Your task to perform on an android device: open app "Facebook Lite" Image 0: 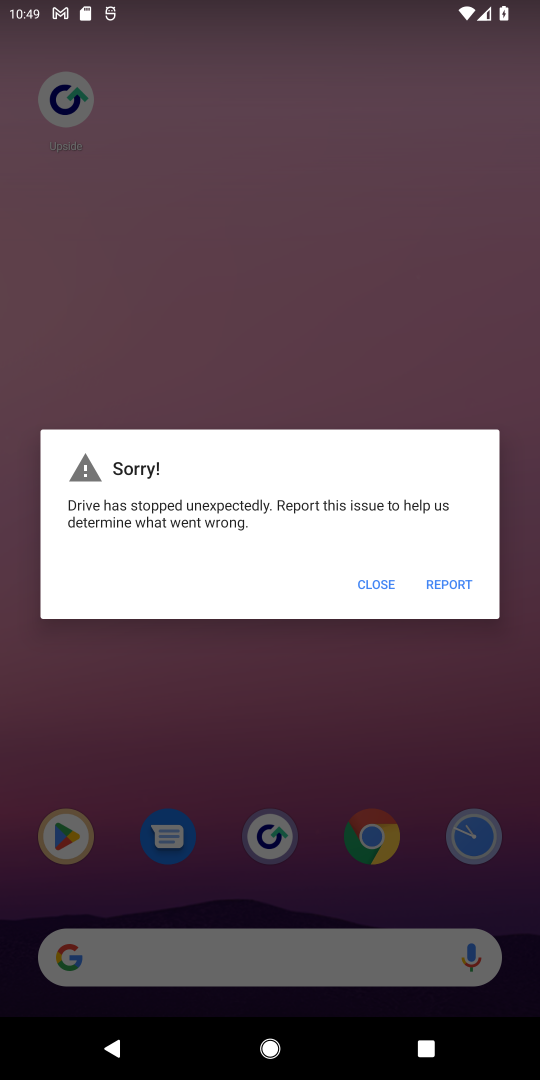
Step 0: press home button
Your task to perform on an android device: open app "Facebook Lite" Image 1: 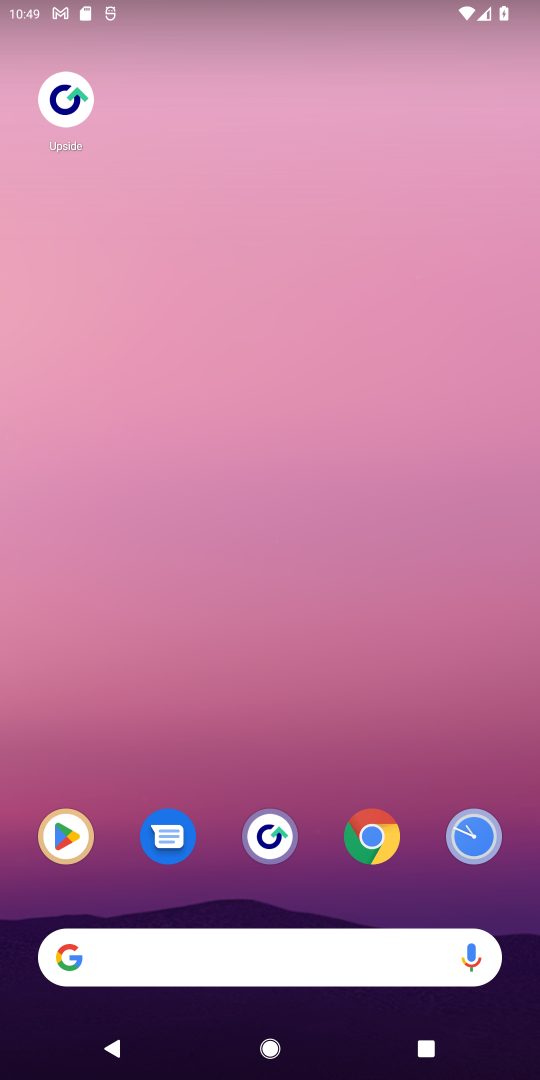
Step 1: drag from (262, 774) to (217, 655)
Your task to perform on an android device: open app "Facebook Lite" Image 2: 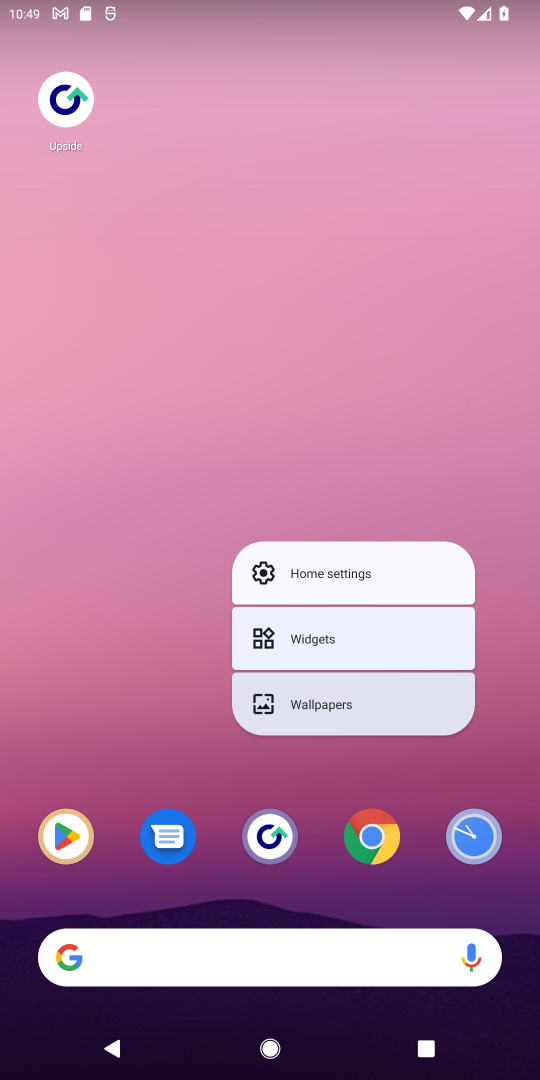
Step 2: click (68, 850)
Your task to perform on an android device: open app "Facebook Lite" Image 3: 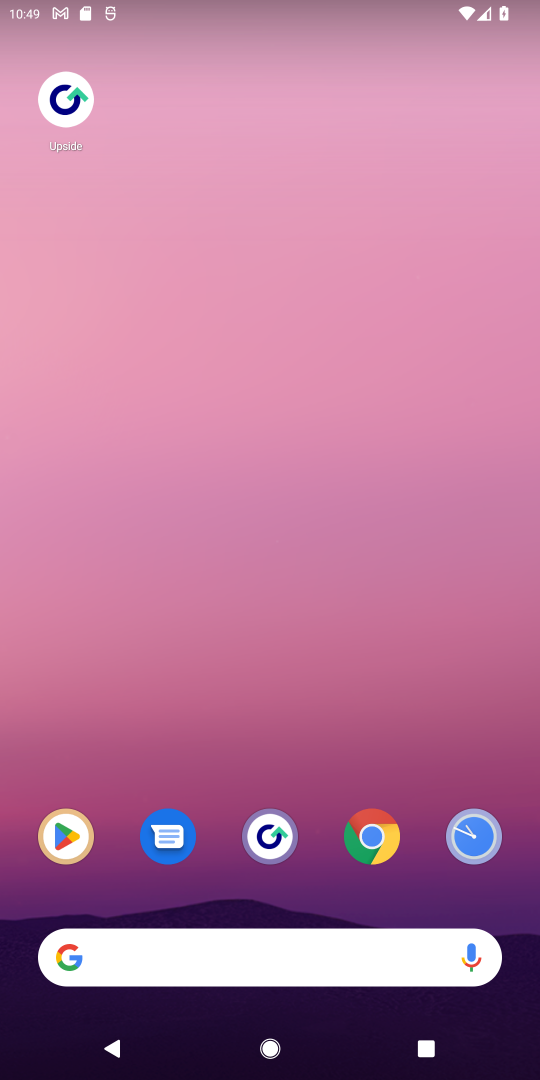
Step 3: click (62, 833)
Your task to perform on an android device: open app "Facebook Lite" Image 4: 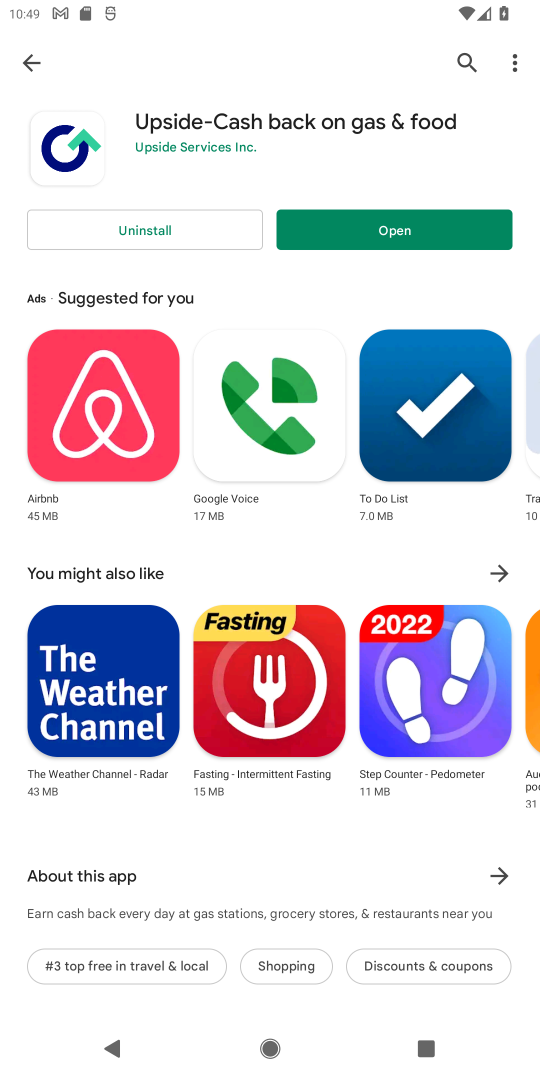
Step 4: click (37, 72)
Your task to perform on an android device: open app "Facebook Lite" Image 5: 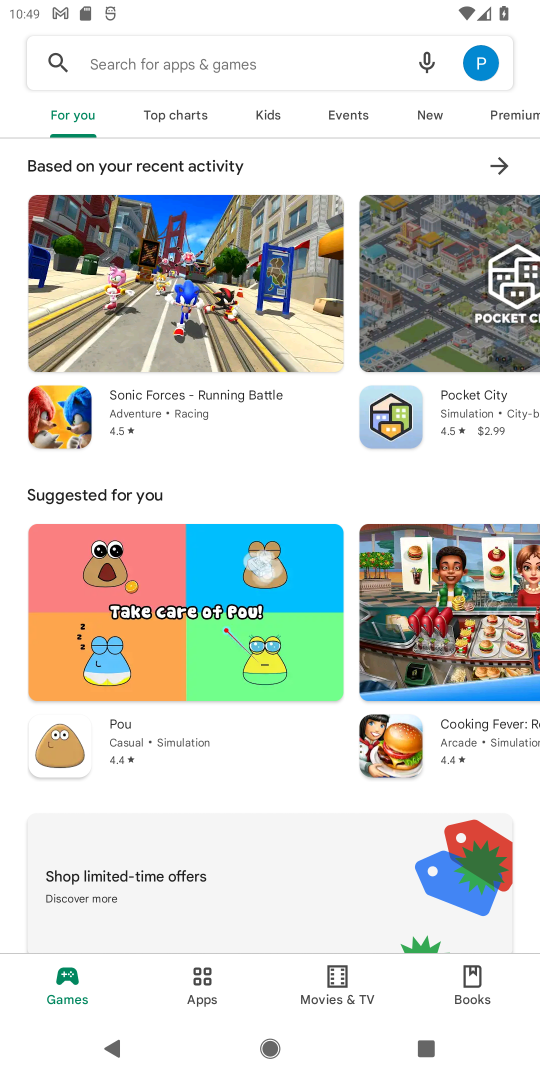
Step 5: click (288, 72)
Your task to perform on an android device: open app "Facebook Lite" Image 6: 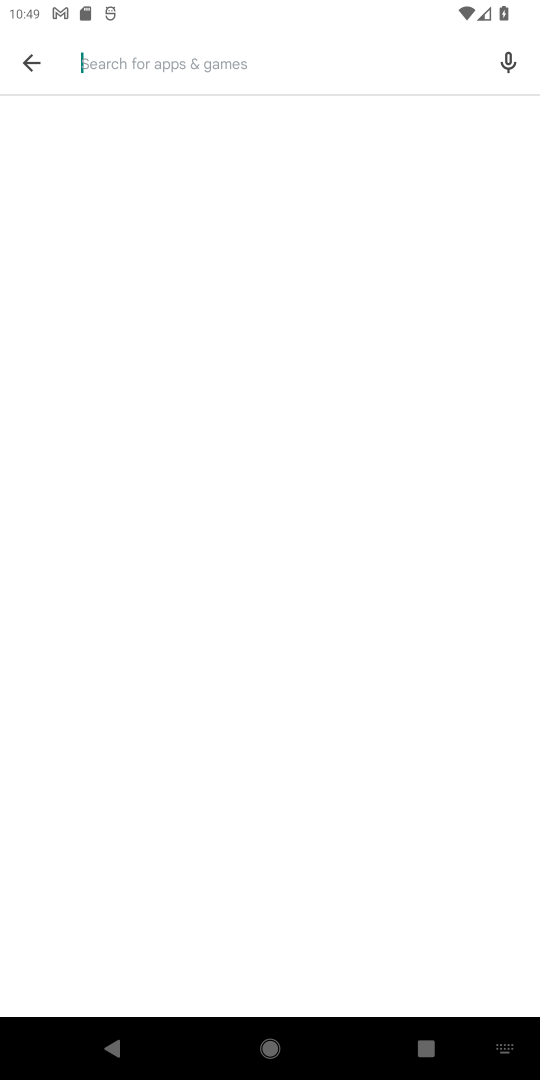
Step 6: type "facebook lite"
Your task to perform on an android device: open app "Facebook Lite" Image 7: 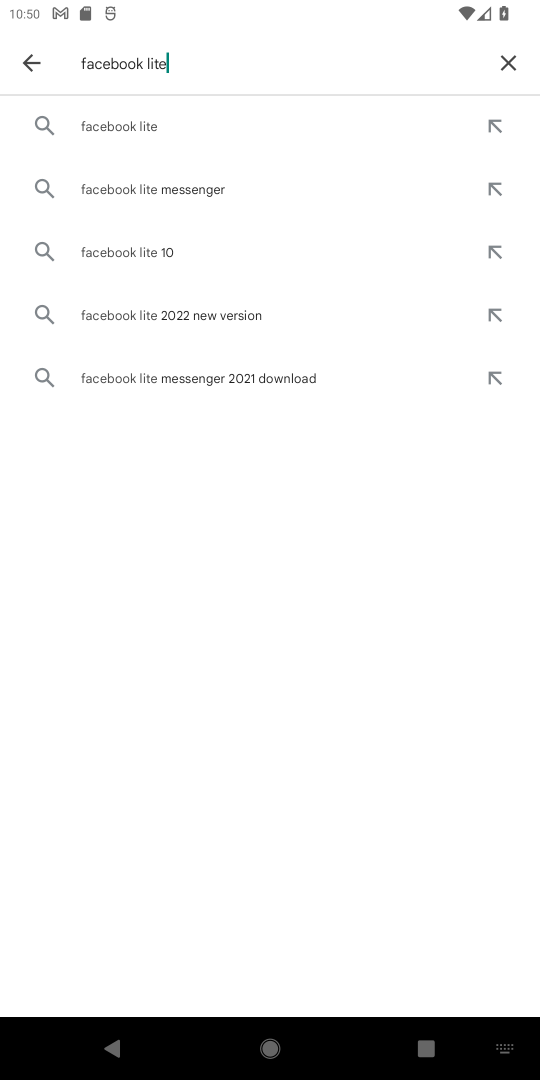
Step 7: click (197, 130)
Your task to perform on an android device: open app "Facebook Lite" Image 8: 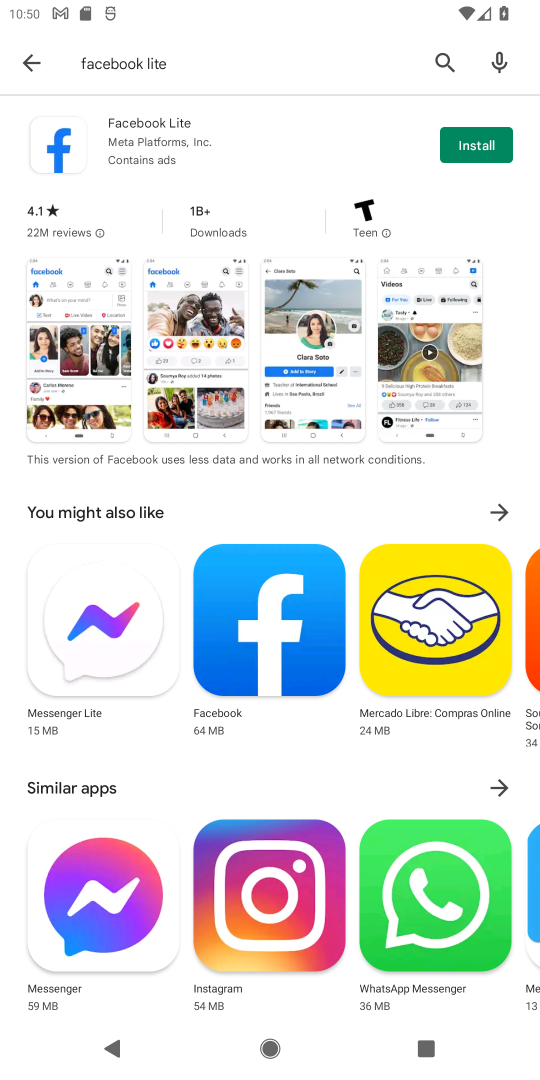
Step 8: task complete